Your task to perform on an android device: find photos in the google photos app Image 0: 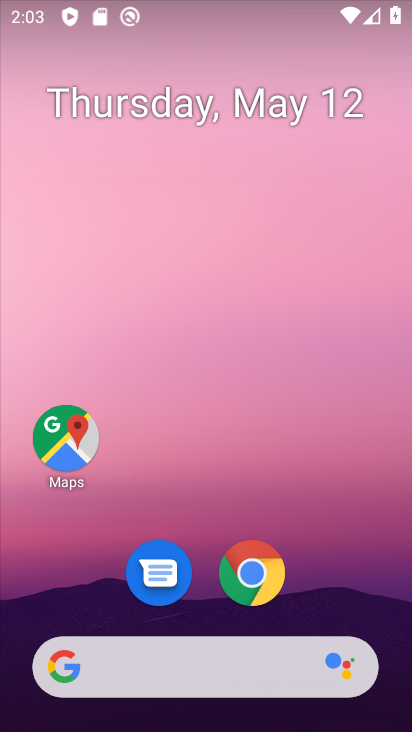
Step 0: drag from (204, 588) to (219, 56)
Your task to perform on an android device: find photos in the google photos app Image 1: 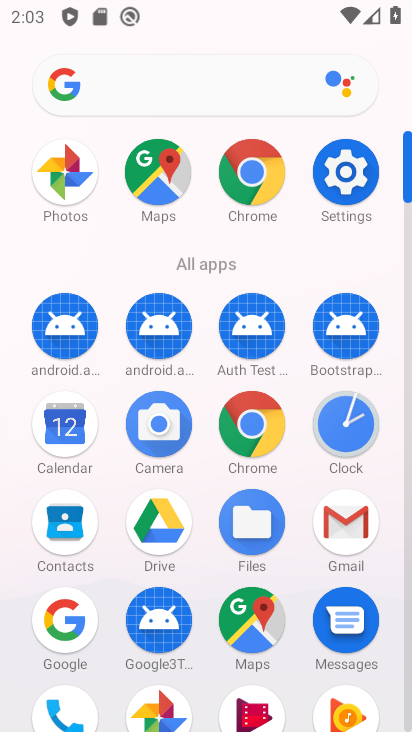
Step 1: drag from (207, 676) to (190, 223)
Your task to perform on an android device: find photos in the google photos app Image 2: 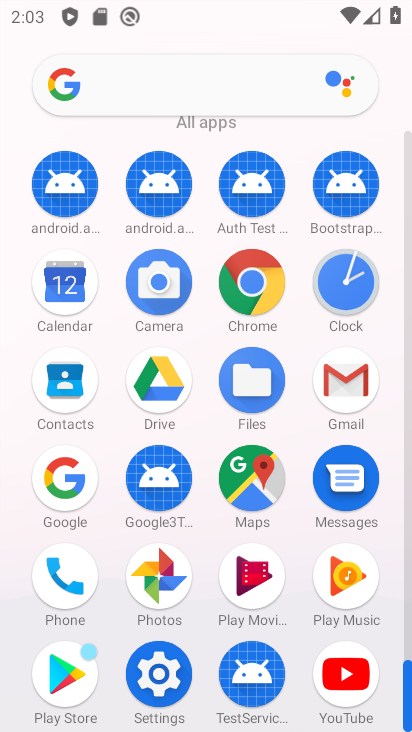
Step 2: click (155, 572)
Your task to perform on an android device: find photos in the google photos app Image 3: 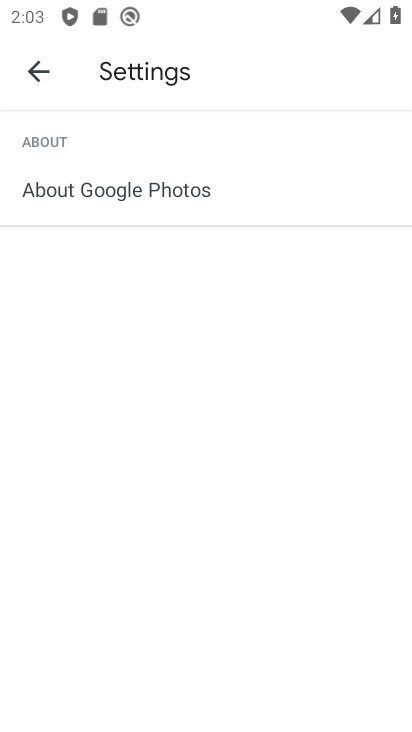
Step 3: click (29, 70)
Your task to perform on an android device: find photos in the google photos app Image 4: 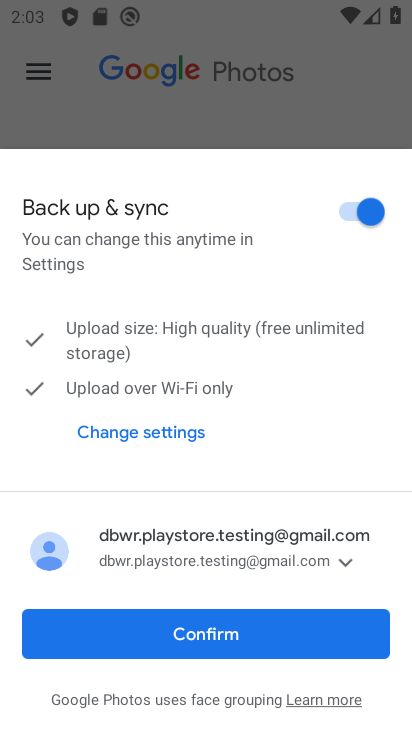
Step 4: click (187, 627)
Your task to perform on an android device: find photos in the google photos app Image 5: 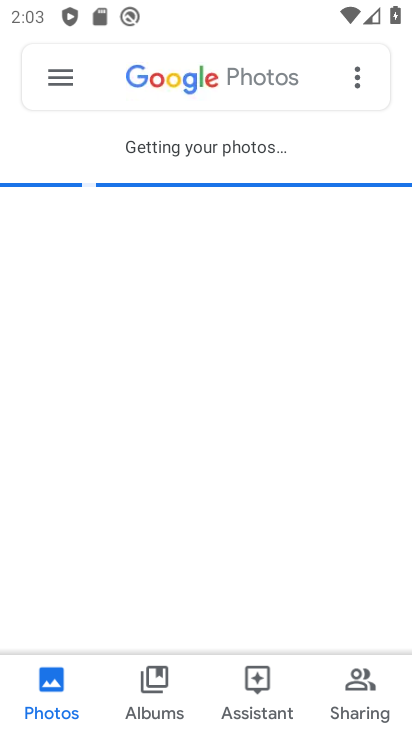
Step 5: click (154, 99)
Your task to perform on an android device: find photos in the google photos app Image 6: 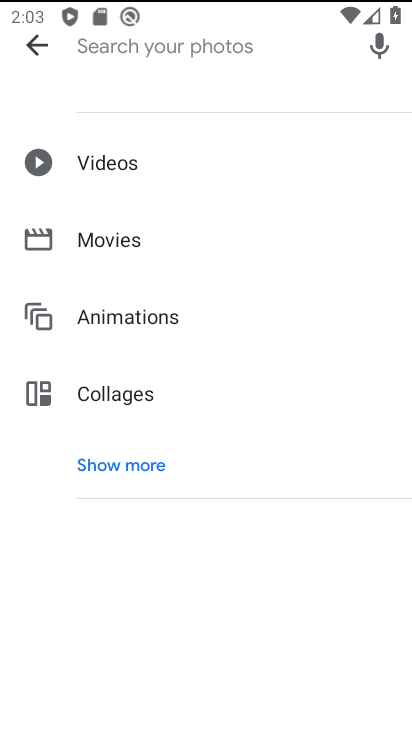
Step 6: click (154, 710)
Your task to perform on an android device: find photos in the google photos app Image 7: 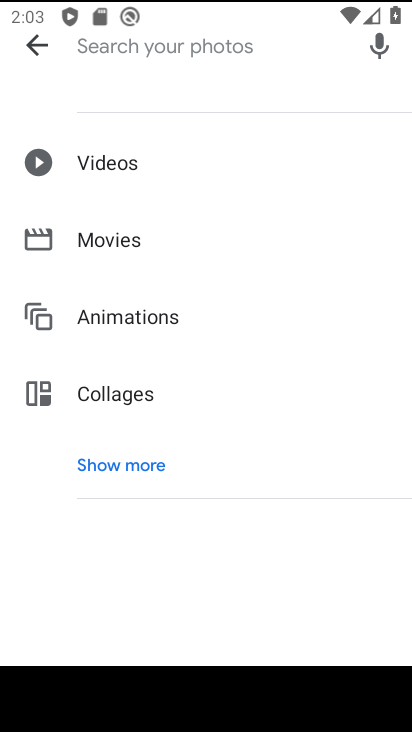
Step 7: click (42, 36)
Your task to perform on an android device: find photos in the google photos app Image 8: 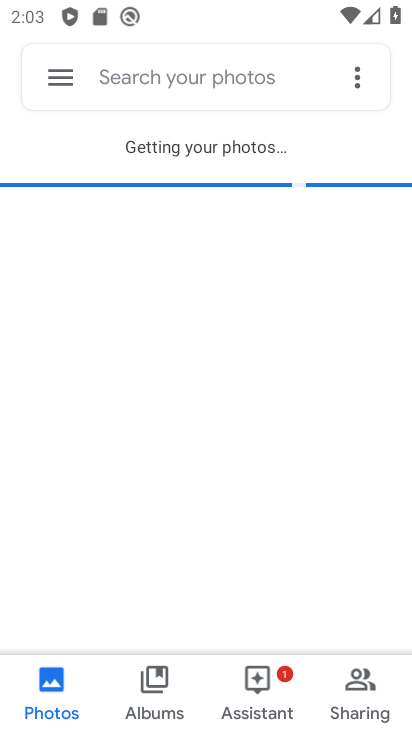
Step 8: click (148, 678)
Your task to perform on an android device: find photos in the google photos app Image 9: 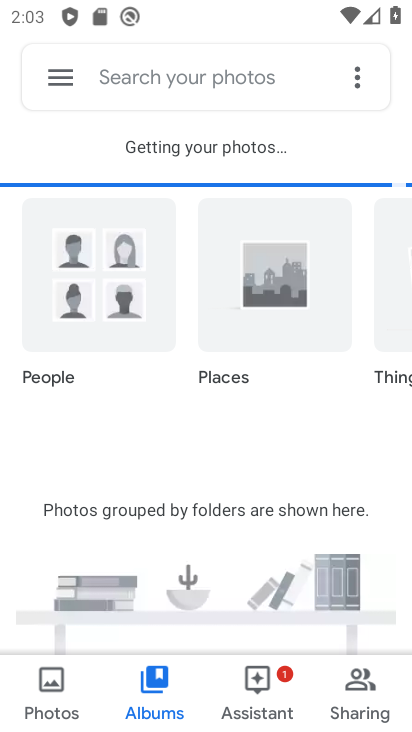
Step 9: drag from (213, 569) to (228, 221)
Your task to perform on an android device: find photos in the google photos app Image 10: 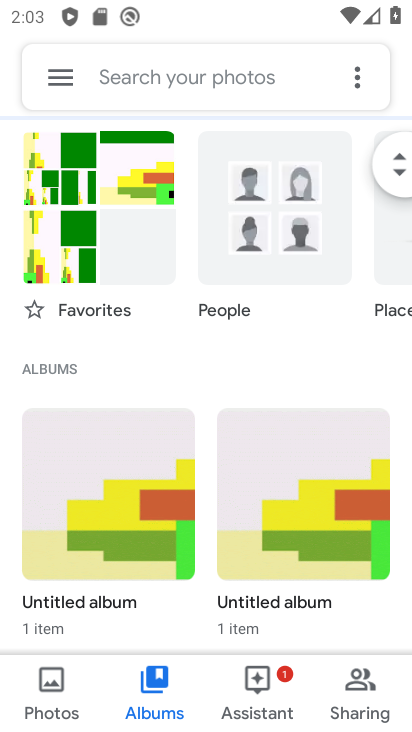
Step 10: drag from (224, 573) to (224, 144)
Your task to perform on an android device: find photos in the google photos app Image 11: 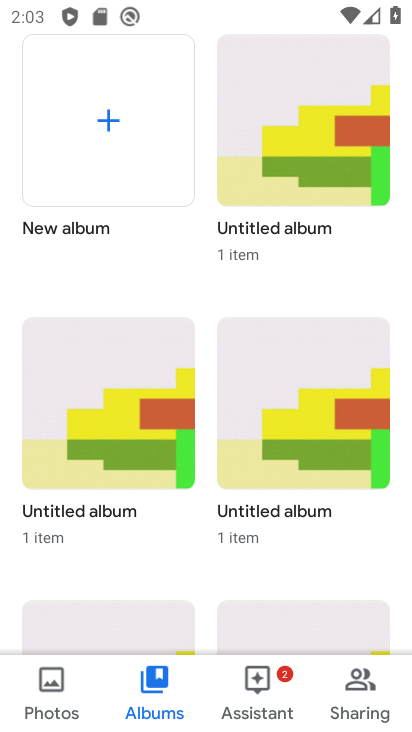
Step 11: drag from (243, 530) to (241, 170)
Your task to perform on an android device: find photos in the google photos app Image 12: 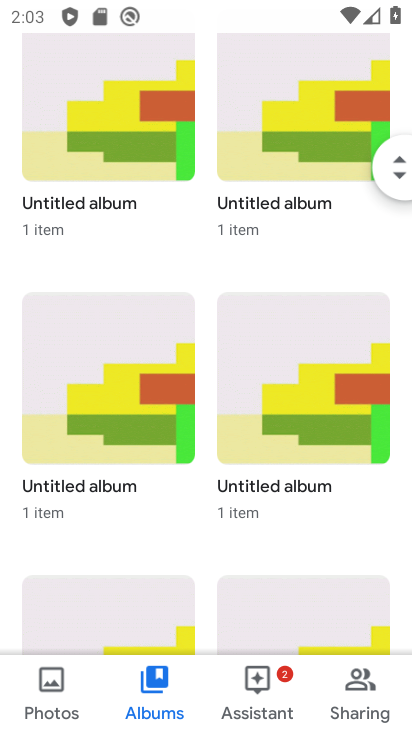
Step 12: drag from (261, 606) to (303, 212)
Your task to perform on an android device: find photos in the google photos app Image 13: 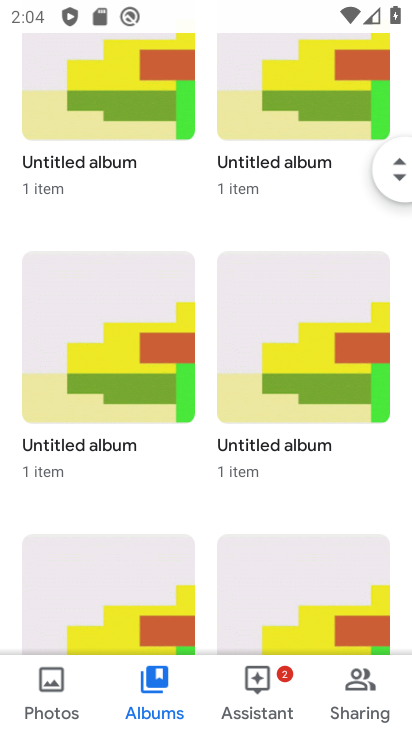
Step 13: click (124, 337)
Your task to perform on an android device: find photos in the google photos app Image 14: 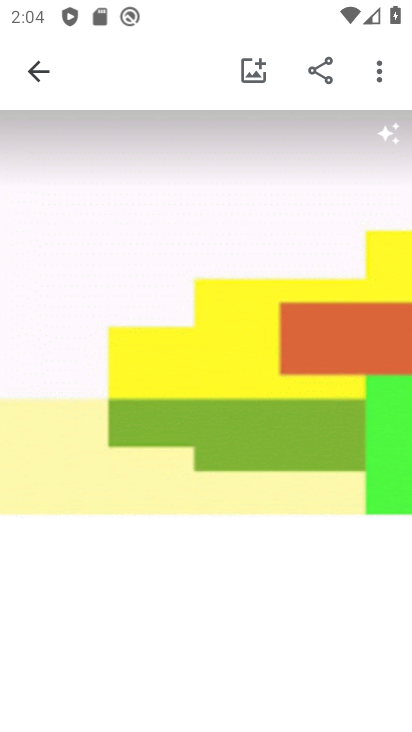
Step 14: click (137, 368)
Your task to perform on an android device: find photos in the google photos app Image 15: 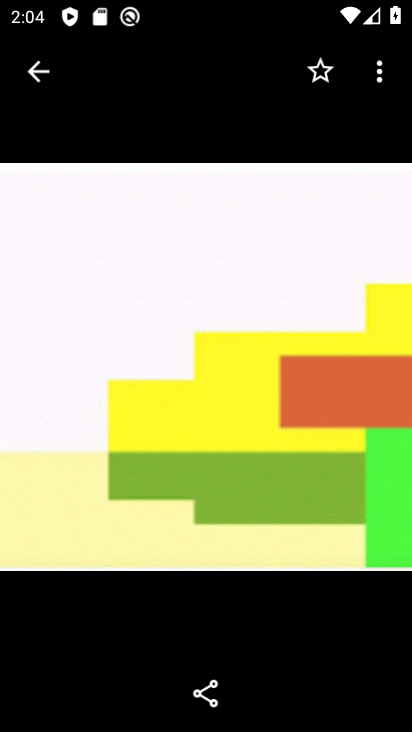
Step 15: task complete